Your task to perform on an android device: set an alarm Image 0: 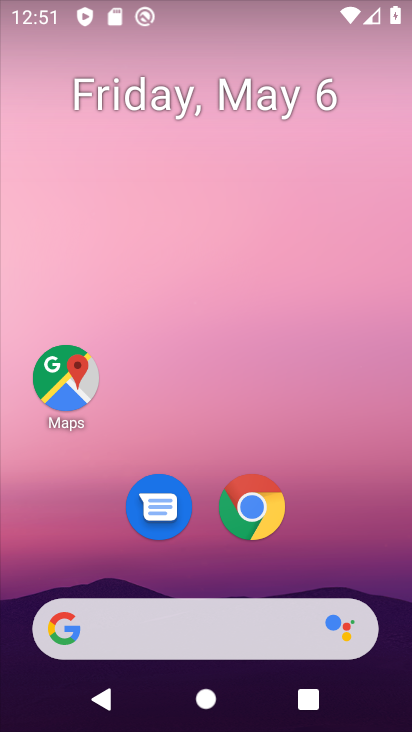
Step 0: drag from (147, 604) to (249, 151)
Your task to perform on an android device: set an alarm Image 1: 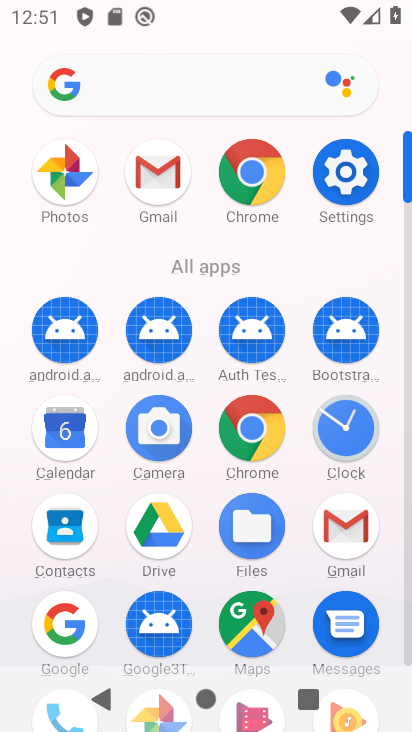
Step 1: click (350, 433)
Your task to perform on an android device: set an alarm Image 2: 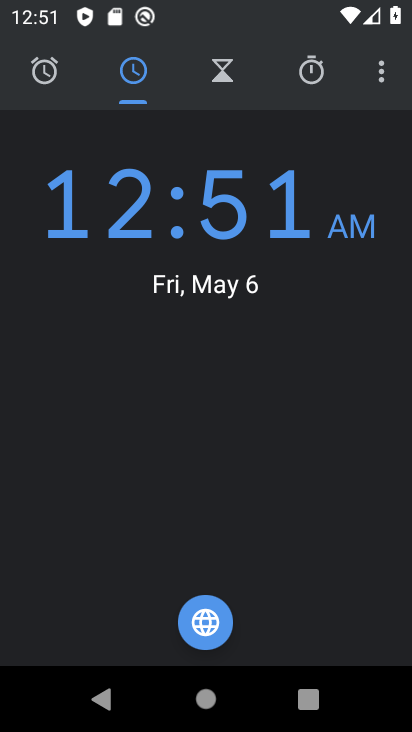
Step 2: click (59, 81)
Your task to perform on an android device: set an alarm Image 3: 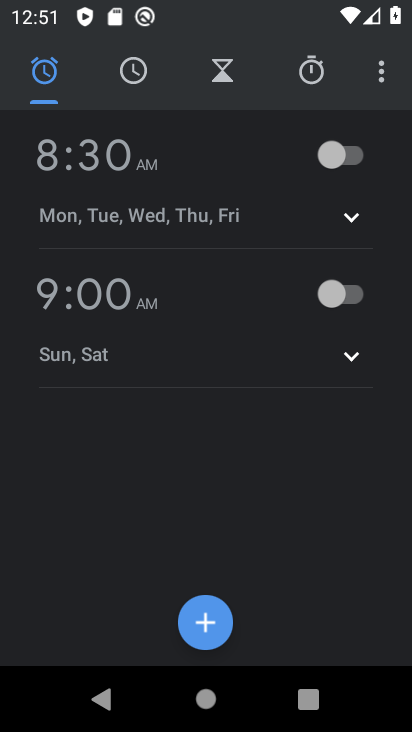
Step 3: click (360, 152)
Your task to perform on an android device: set an alarm Image 4: 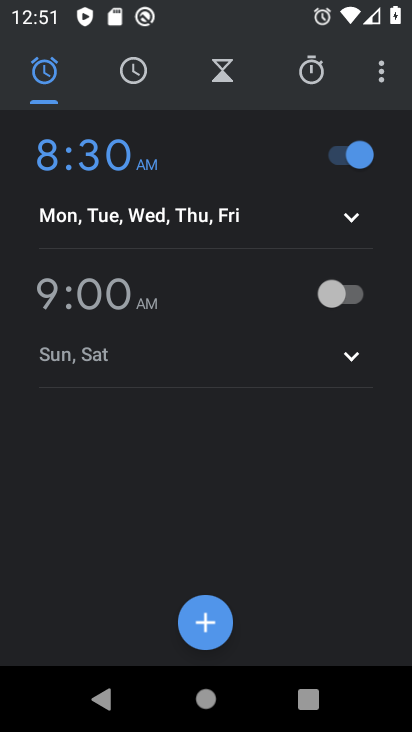
Step 4: task complete